Your task to perform on an android device: delete browsing data in the chrome app Image 0: 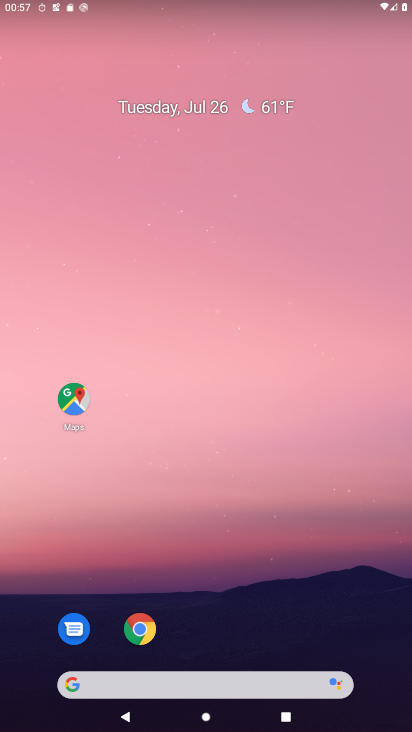
Step 0: click (138, 641)
Your task to perform on an android device: delete browsing data in the chrome app Image 1: 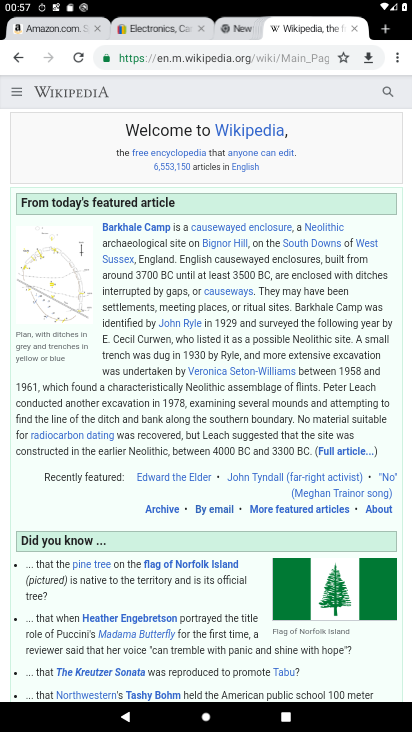
Step 1: drag from (399, 52) to (298, 184)
Your task to perform on an android device: delete browsing data in the chrome app Image 2: 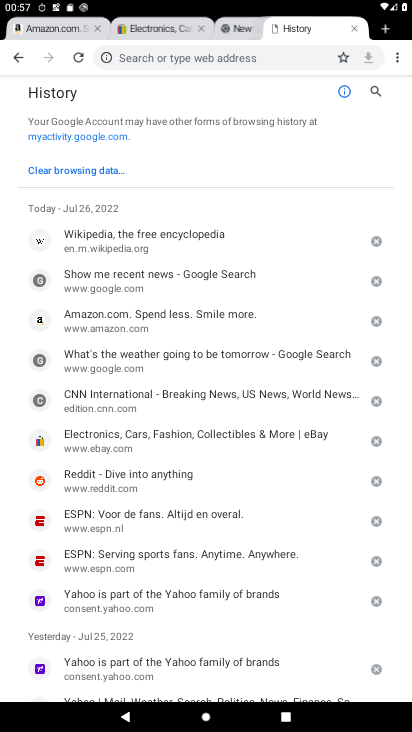
Step 2: click (41, 163)
Your task to perform on an android device: delete browsing data in the chrome app Image 3: 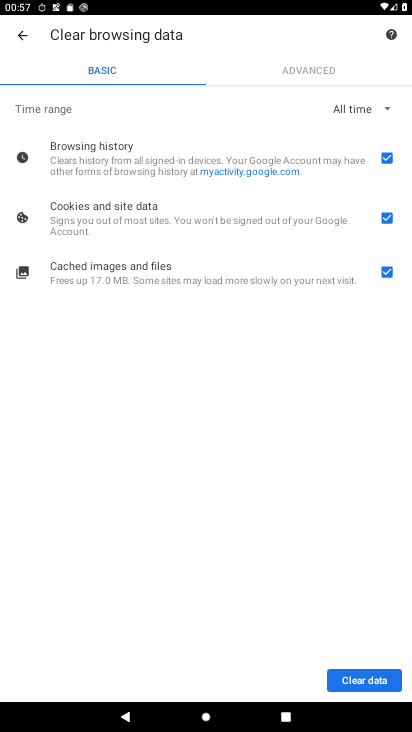
Step 3: click (368, 672)
Your task to perform on an android device: delete browsing data in the chrome app Image 4: 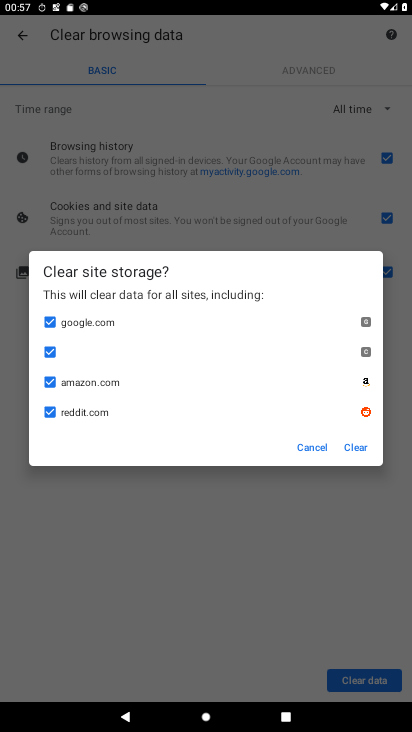
Step 4: click (358, 447)
Your task to perform on an android device: delete browsing data in the chrome app Image 5: 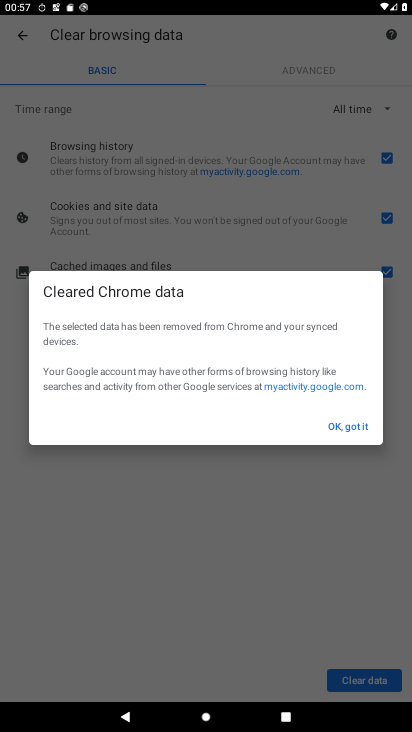
Step 5: task complete